Your task to perform on an android device: Go to internet settings Image 0: 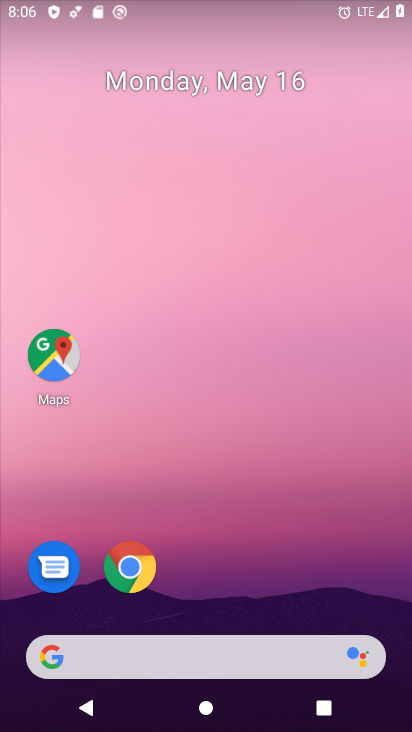
Step 0: drag from (210, 470) to (234, 299)
Your task to perform on an android device: Go to internet settings Image 1: 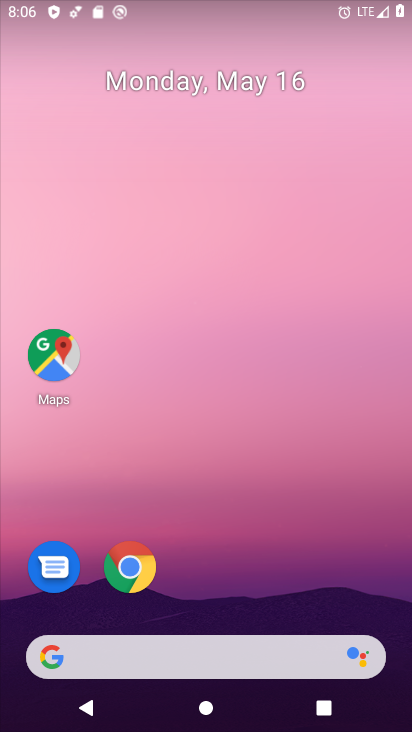
Step 1: drag from (224, 652) to (259, 172)
Your task to perform on an android device: Go to internet settings Image 2: 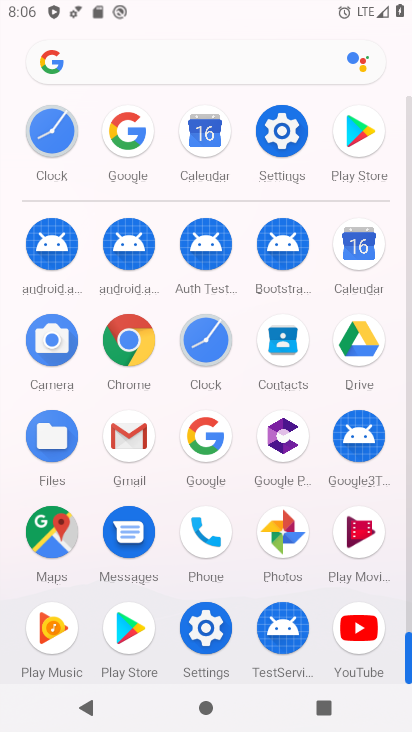
Step 2: click (276, 145)
Your task to perform on an android device: Go to internet settings Image 3: 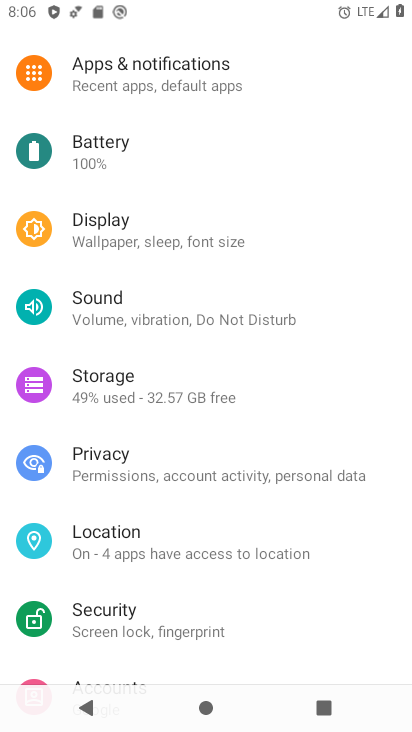
Step 3: drag from (179, 103) to (217, 467)
Your task to perform on an android device: Go to internet settings Image 4: 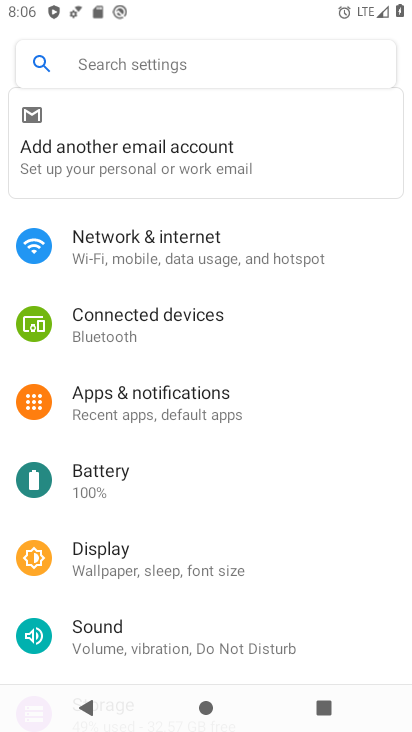
Step 4: drag from (142, 179) to (158, 545)
Your task to perform on an android device: Go to internet settings Image 5: 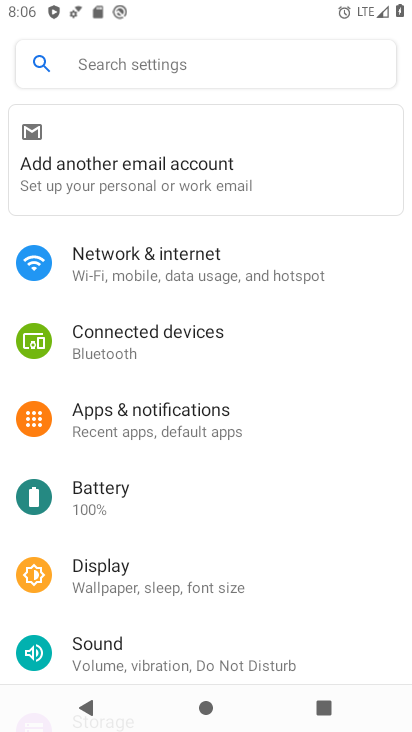
Step 5: click (129, 255)
Your task to perform on an android device: Go to internet settings Image 6: 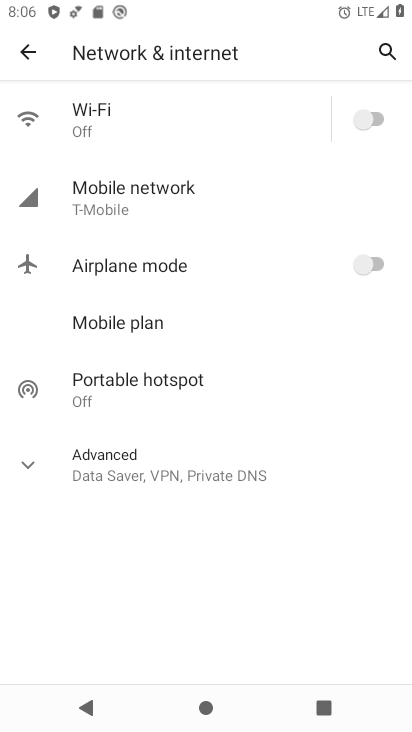
Step 6: click (69, 464)
Your task to perform on an android device: Go to internet settings Image 7: 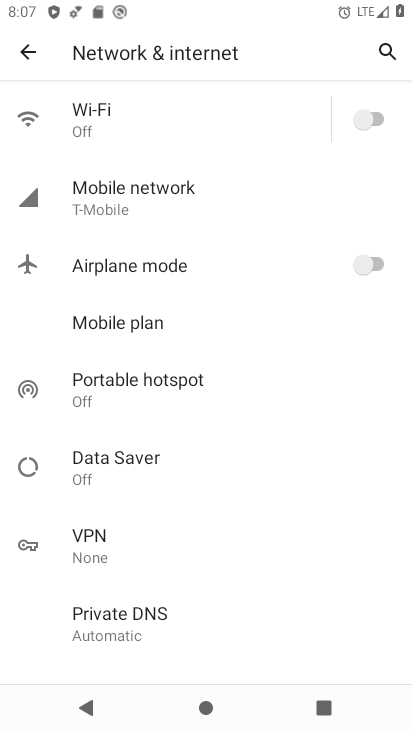
Step 7: task complete